Your task to perform on an android device: check data usage Image 0: 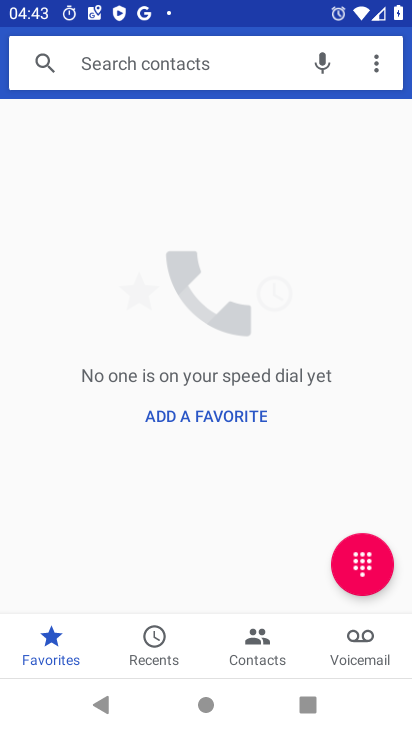
Step 0: press home button
Your task to perform on an android device: check data usage Image 1: 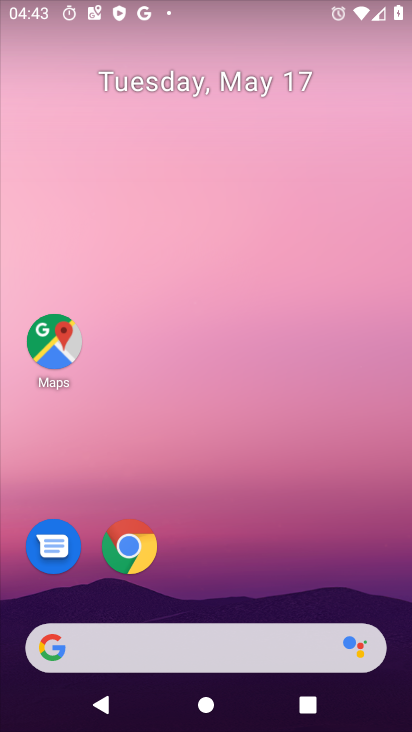
Step 1: click (384, 449)
Your task to perform on an android device: check data usage Image 2: 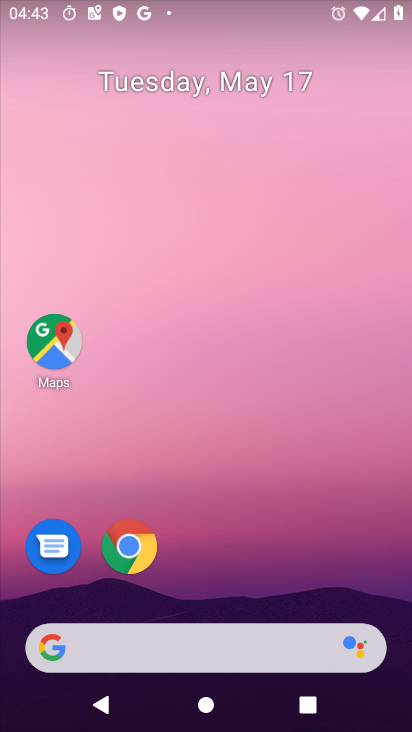
Step 2: drag from (396, 680) to (384, 362)
Your task to perform on an android device: check data usage Image 3: 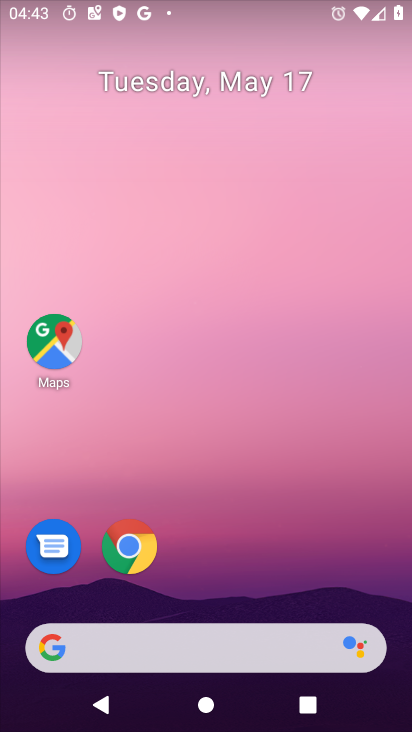
Step 3: drag from (396, 651) to (360, 269)
Your task to perform on an android device: check data usage Image 4: 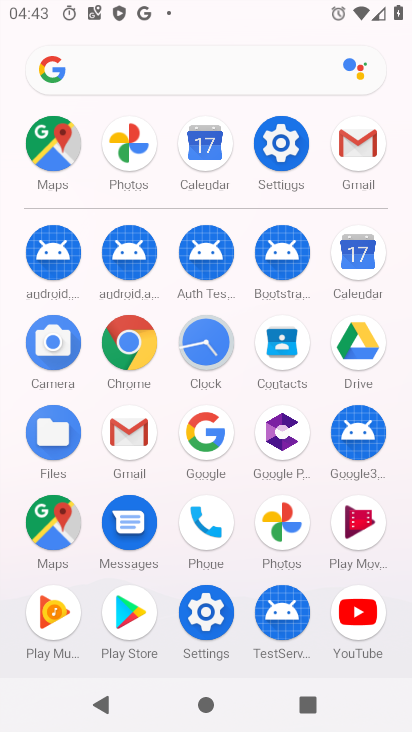
Step 4: click (280, 159)
Your task to perform on an android device: check data usage Image 5: 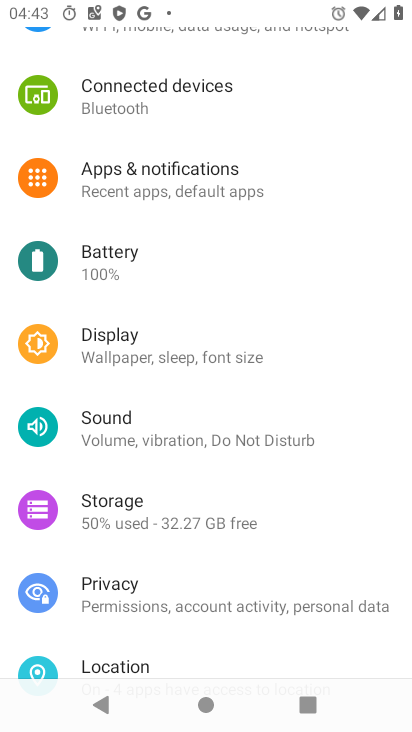
Step 5: drag from (329, 217) to (337, 403)
Your task to perform on an android device: check data usage Image 6: 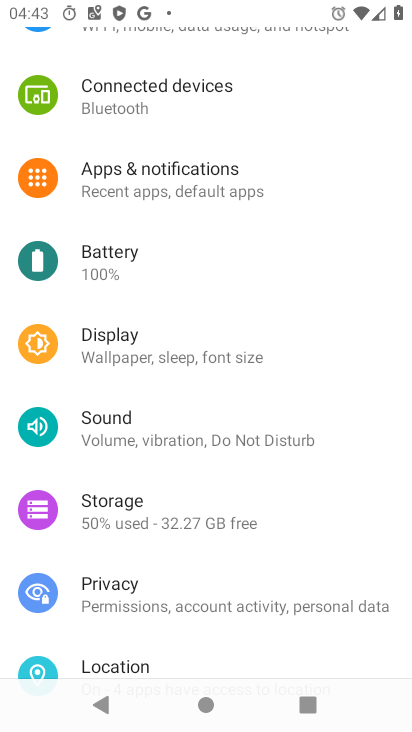
Step 6: drag from (351, 140) to (385, 445)
Your task to perform on an android device: check data usage Image 7: 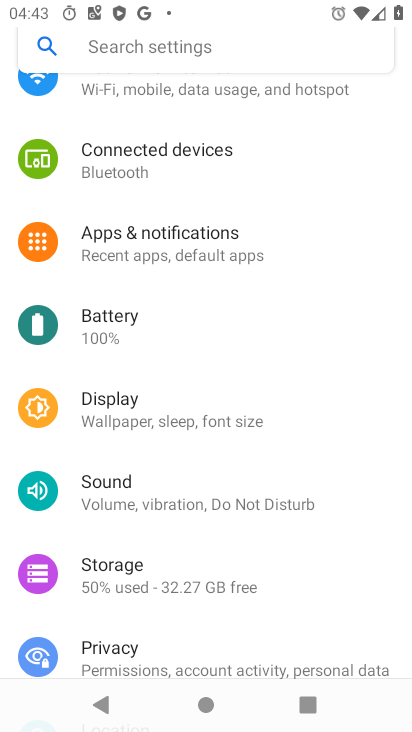
Step 7: drag from (356, 190) to (359, 442)
Your task to perform on an android device: check data usage Image 8: 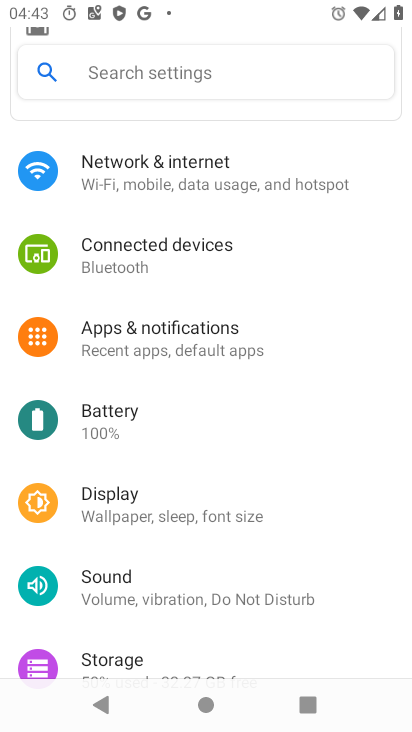
Step 8: drag from (375, 197) to (395, 470)
Your task to perform on an android device: check data usage Image 9: 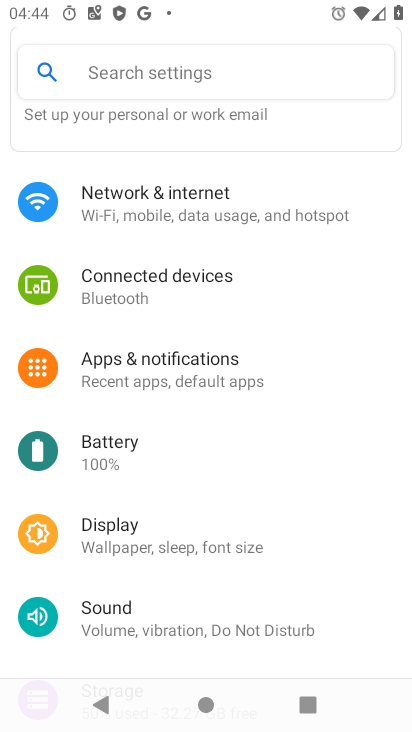
Step 9: drag from (378, 284) to (364, 526)
Your task to perform on an android device: check data usage Image 10: 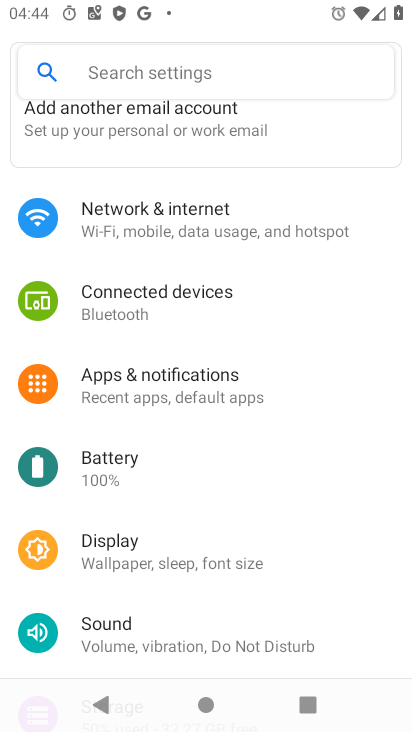
Step 10: click (172, 203)
Your task to perform on an android device: check data usage Image 11: 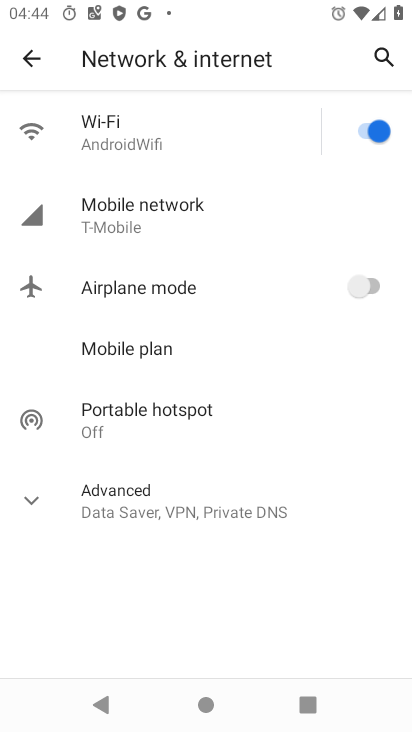
Step 11: click (171, 205)
Your task to perform on an android device: check data usage Image 12: 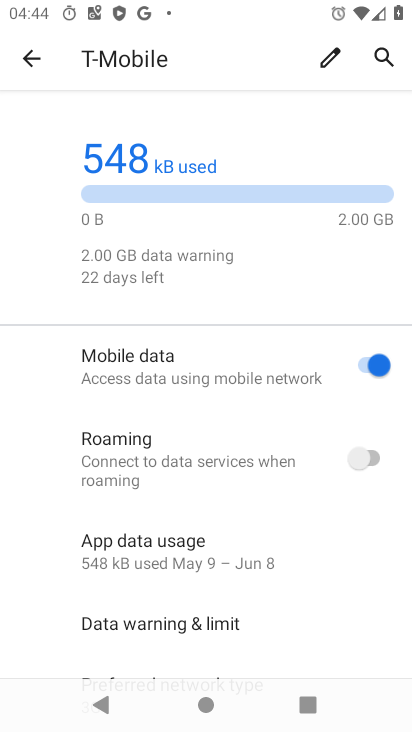
Step 12: task complete